Your task to perform on an android device: set default search engine in the chrome app Image 0: 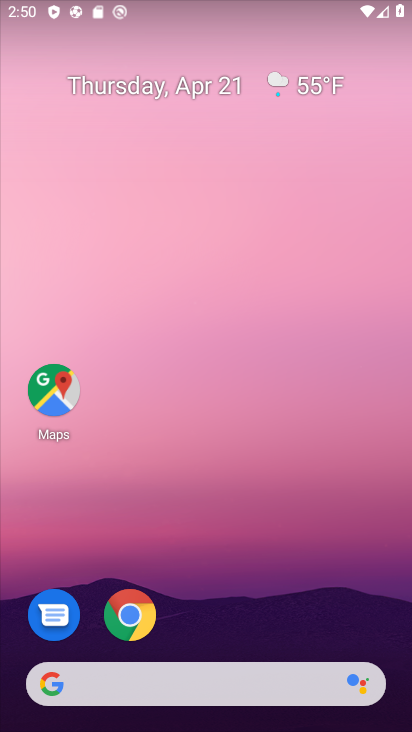
Step 0: drag from (156, 681) to (267, 210)
Your task to perform on an android device: set default search engine in the chrome app Image 1: 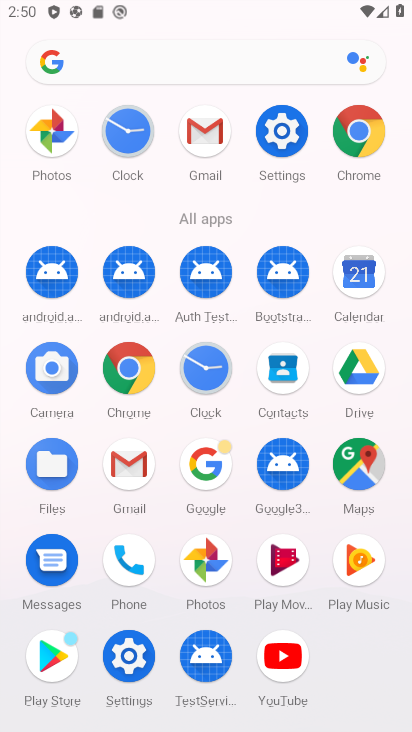
Step 1: click (353, 148)
Your task to perform on an android device: set default search engine in the chrome app Image 2: 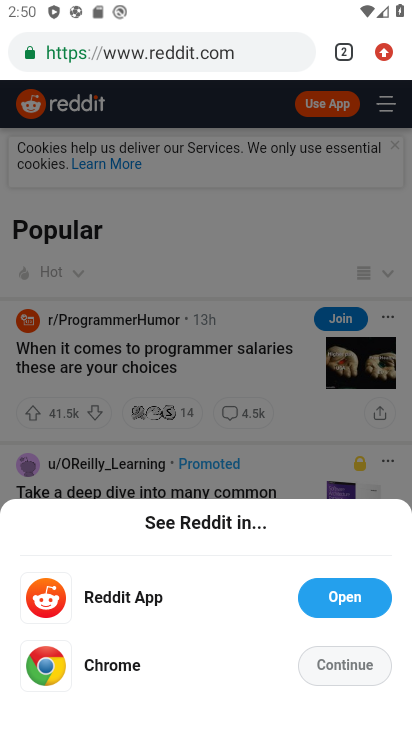
Step 2: click (375, 66)
Your task to perform on an android device: set default search engine in the chrome app Image 3: 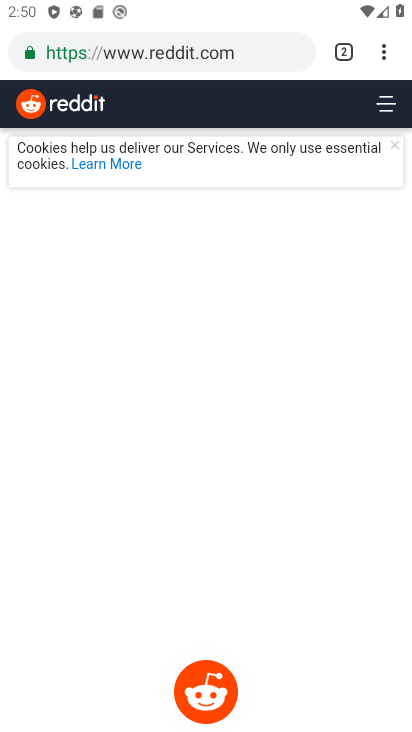
Step 3: click (379, 66)
Your task to perform on an android device: set default search engine in the chrome app Image 4: 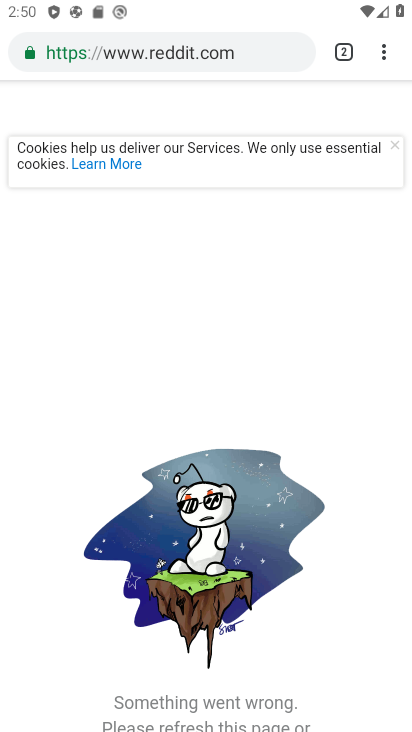
Step 4: click (390, 69)
Your task to perform on an android device: set default search engine in the chrome app Image 5: 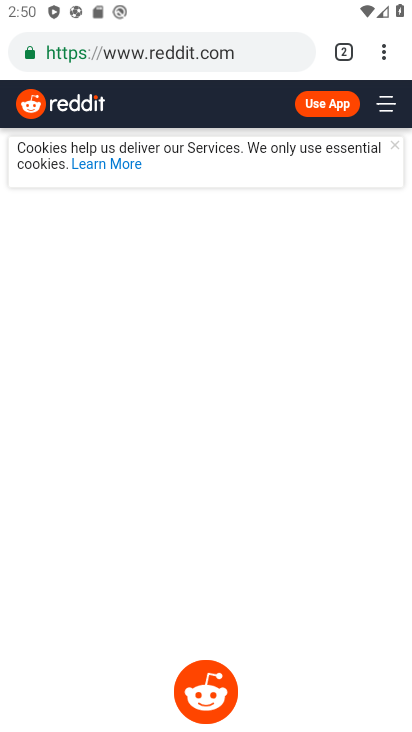
Step 5: click (379, 61)
Your task to perform on an android device: set default search engine in the chrome app Image 6: 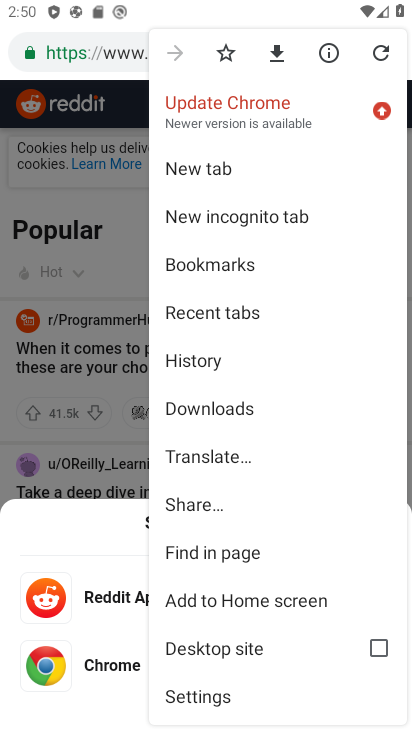
Step 6: click (208, 697)
Your task to perform on an android device: set default search engine in the chrome app Image 7: 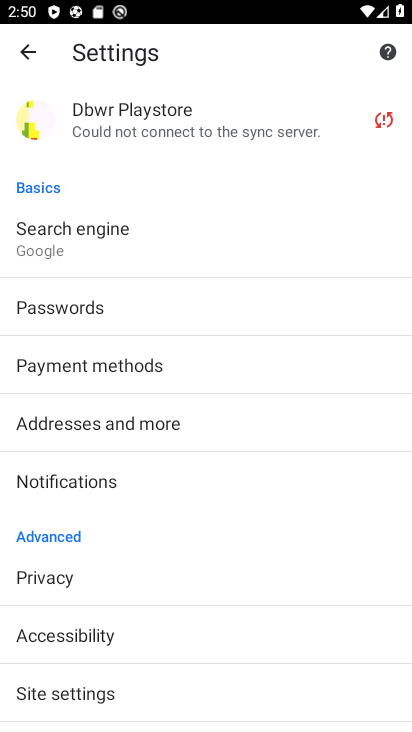
Step 7: click (83, 240)
Your task to perform on an android device: set default search engine in the chrome app Image 8: 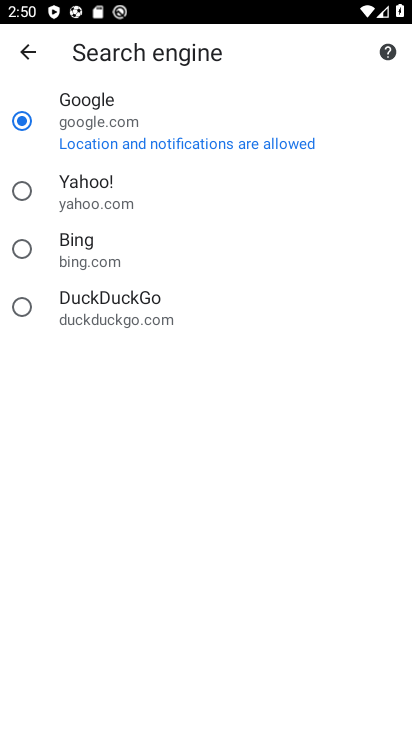
Step 8: click (18, 189)
Your task to perform on an android device: set default search engine in the chrome app Image 9: 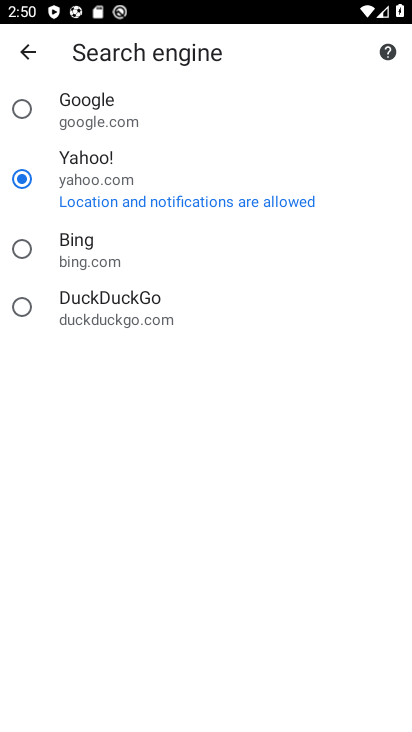
Step 9: task complete